Your task to perform on an android device: stop showing notifications on the lock screen Image 0: 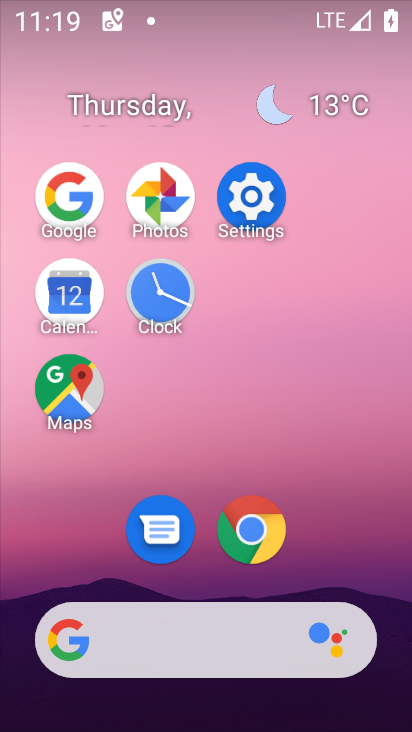
Step 0: click (262, 177)
Your task to perform on an android device: stop showing notifications on the lock screen Image 1: 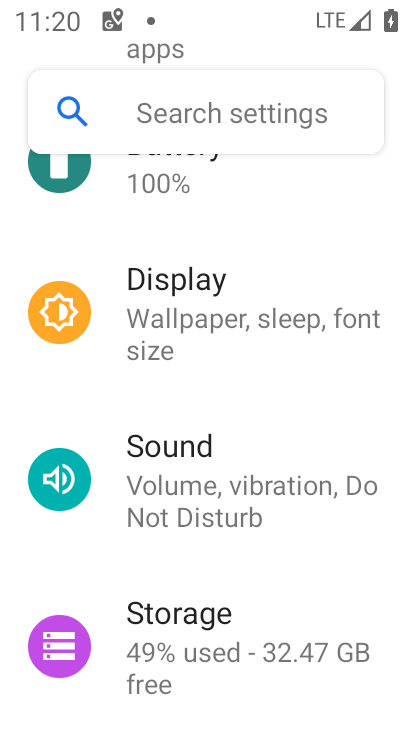
Step 1: drag from (314, 350) to (330, 727)
Your task to perform on an android device: stop showing notifications on the lock screen Image 2: 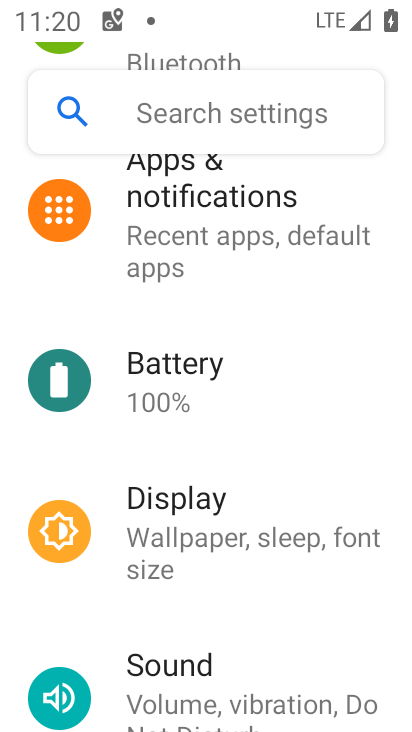
Step 2: drag from (283, 476) to (277, 633)
Your task to perform on an android device: stop showing notifications on the lock screen Image 3: 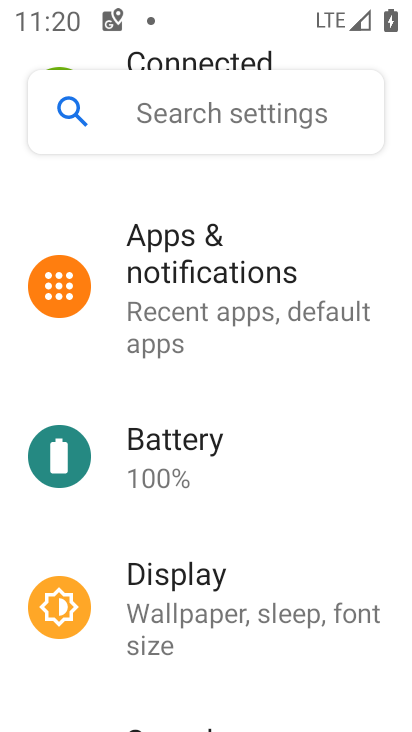
Step 3: click (226, 308)
Your task to perform on an android device: stop showing notifications on the lock screen Image 4: 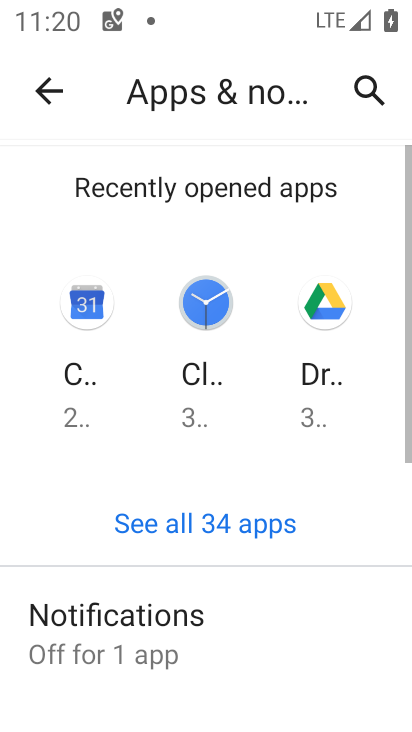
Step 4: click (83, 623)
Your task to perform on an android device: stop showing notifications on the lock screen Image 5: 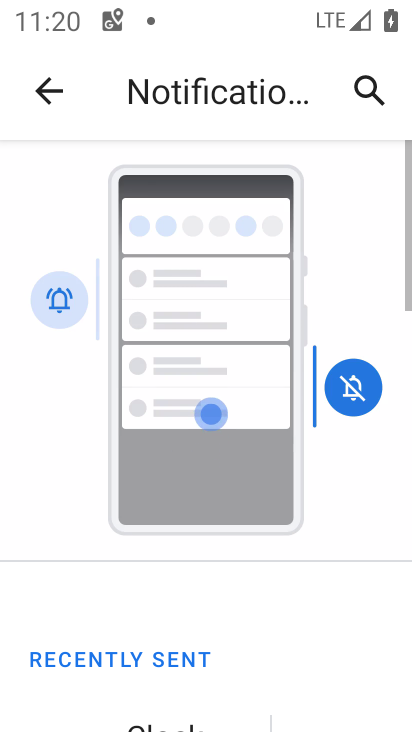
Step 5: drag from (252, 616) to (291, 92)
Your task to perform on an android device: stop showing notifications on the lock screen Image 6: 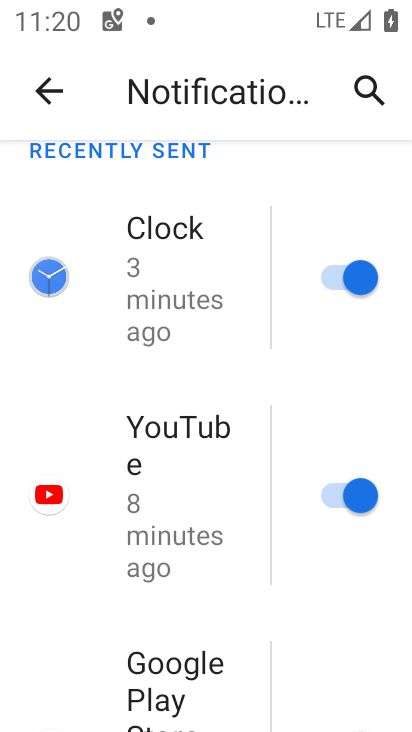
Step 6: drag from (214, 708) to (228, 223)
Your task to perform on an android device: stop showing notifications on the lock screen Image 7: 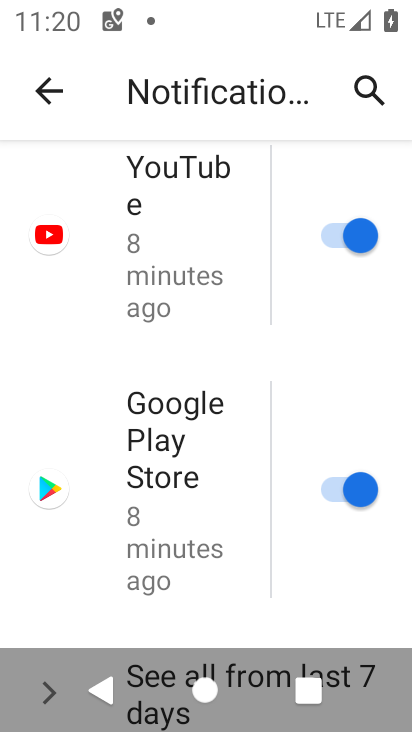
Step 7: drag from (216, 592) to (207, 225)
Your task to perform on an android device: stop showing notifications on the lock screen Image 8: 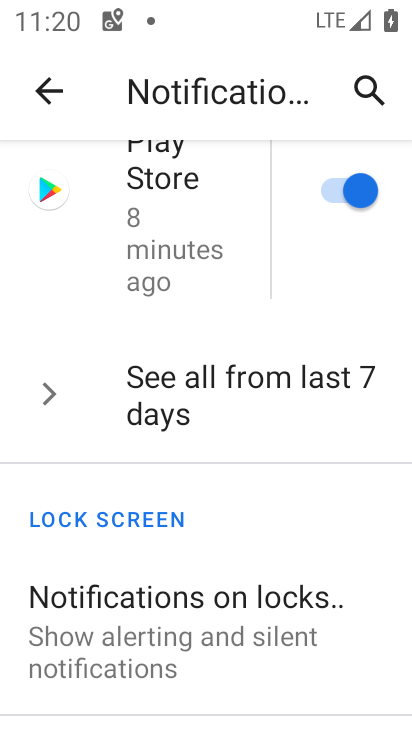
Step 8: click (182, 630)
Your task to perform on an android device: stop showing notifications on the lock screen Image 9: 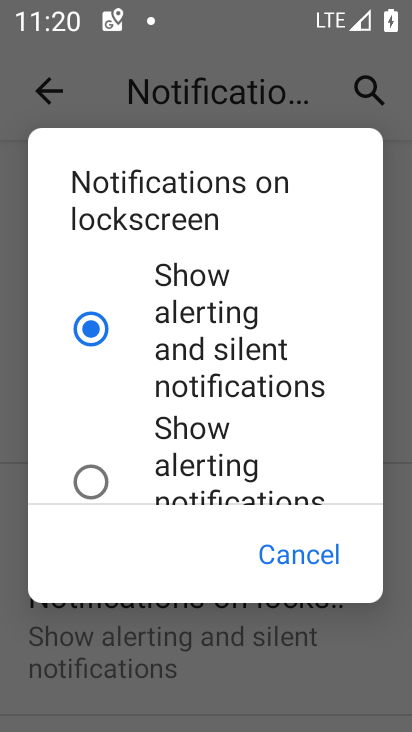
Step 9: drag from (174, 440) to (192, 193)
Your task to perform on an android device: stop showing notifications on the lock screen Image 10: 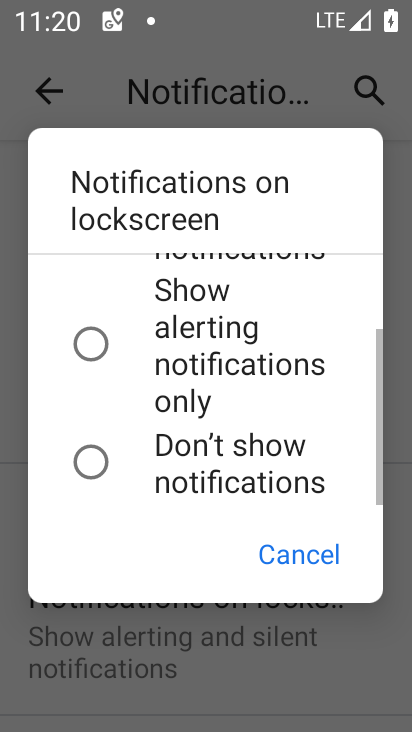
Step 10: click (200, 454)
Your task to perform on an android device: stop showing notifications on the lock screen Image 11: 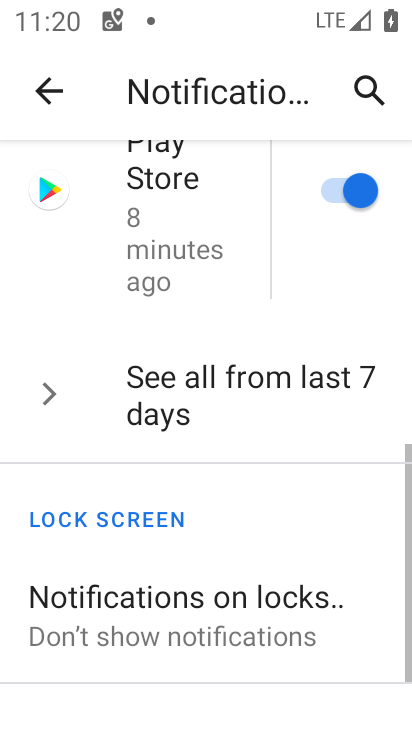
Step 11: task complete